Your task to perform on an android device: visit the assistant section in the google photos Image 0: 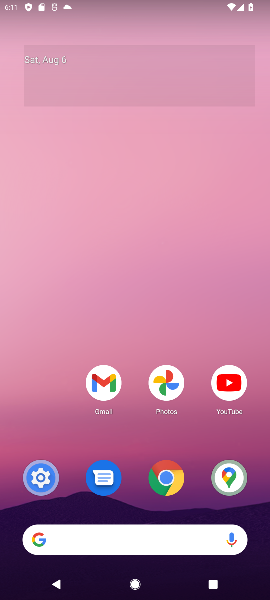
Step 0: press home button
Your task to perform on an android device: visit the assistant section in the google photos Image 1: 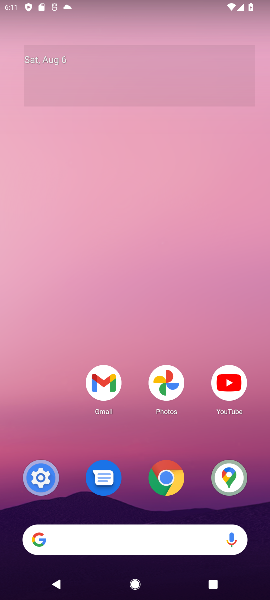
Step 1: drag from (142, 515) to (266, 0)
Your task to perform on an android device: visit the assistant section in the google photos Image 2: 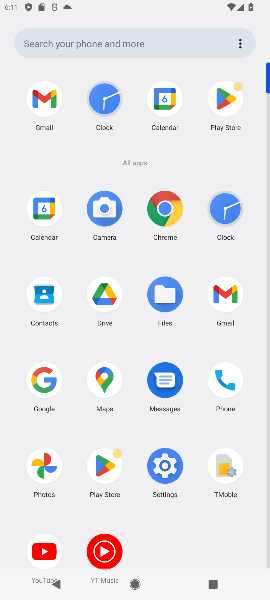
Step 2: click (50, 462)
Your task to perform on an android device: visit the assistant section in the google photos Image 3: 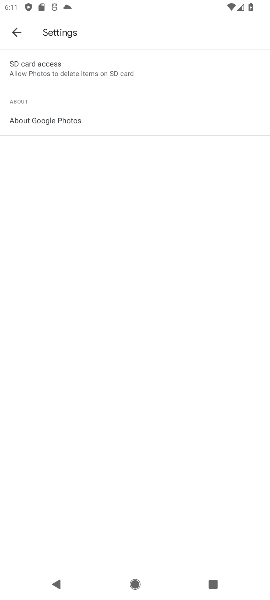
Step 3: click (11, 29)
Your task to perform on an android device: visit the assistant section in the google photos Image 4: 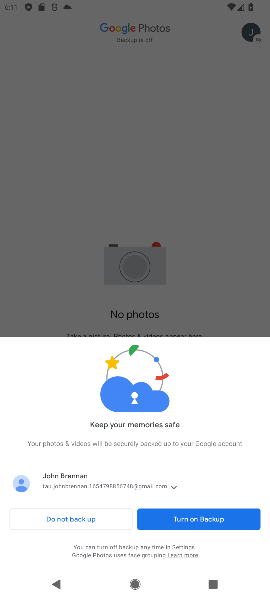
Step 4: click (66, 518)
Your task to perform on an android device: visit the assistant section in the google photos Image 5: 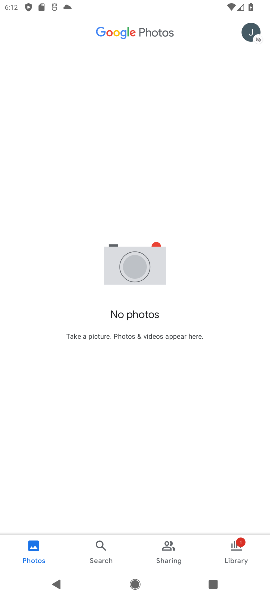
Step 5: task complete